Your task to perform on an android device: remove spam from my inbox in the gmail app Image 0: 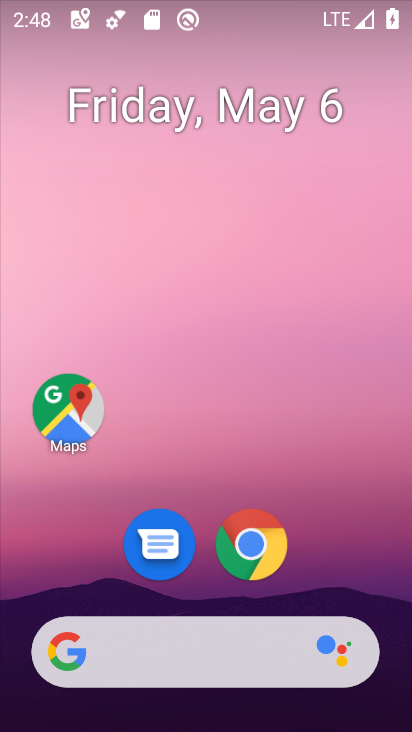
Step 0: drag from (388, 656) to (359, 321)
Your task to perform on an android device: remove spam from my inbox in the gmail app Image 1: 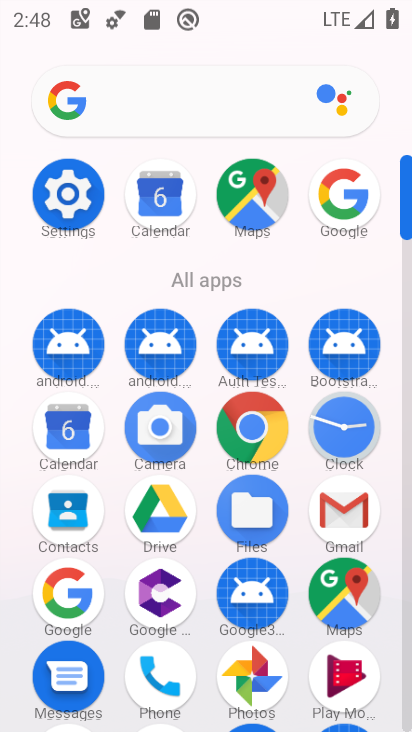
Step 1: click (349, 518)
Your task to perform on an android device: remove spam from my inbox in the gmail app Image 2: 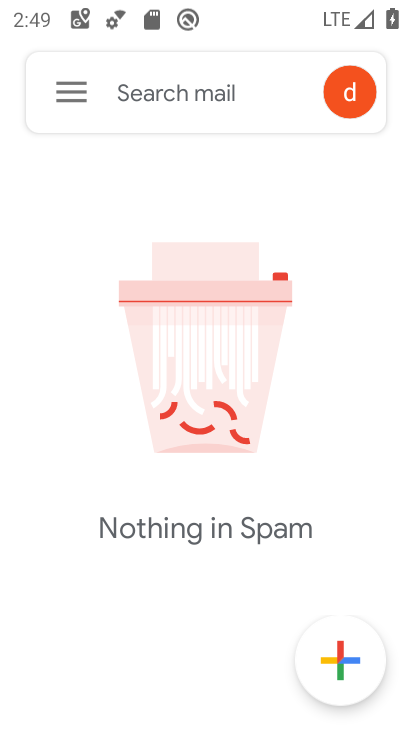
Step 2: task complete